Your task to perform on an android device: Search for alienware area 51 on walmart, select the first entry, and add it to the cart. Image 0: 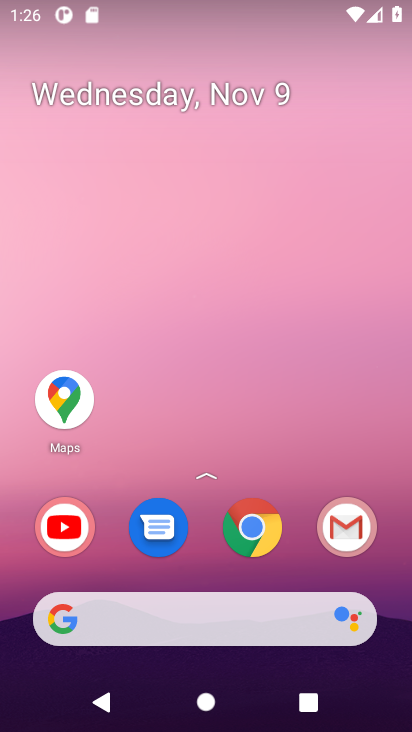
Step 0: click (254, 525)
Your task to perform on an android device: Search for alienware area 51 on walmart, select the first entry, and add it to the cart. Image 1: 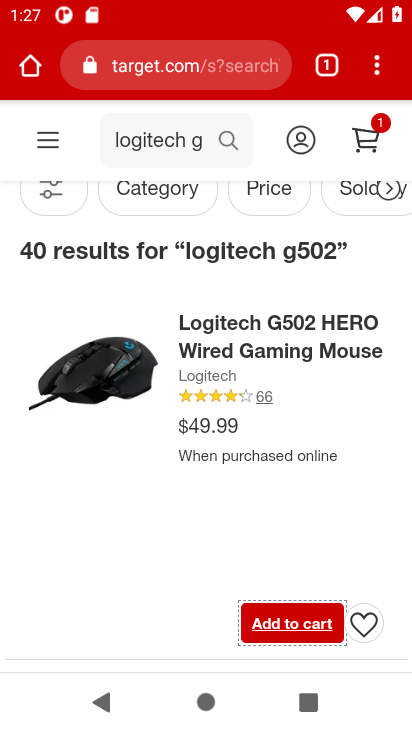
Step 1: click (252, 68)
Your task to perform on an android device: Search for alienware area 51 on walmart, select the first entry, and add it to the cart. Image 2: 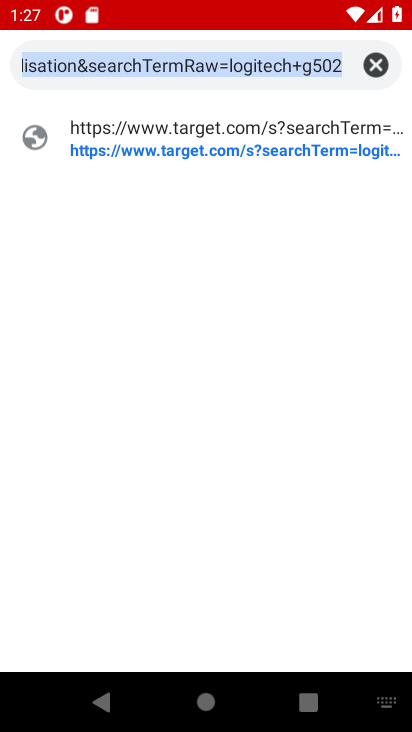
Step 2: click (380, 73)
Your task to perform on an android device: Search for alienware area 51 on walmart, select the first entry, and add it to the cart. Image 3: 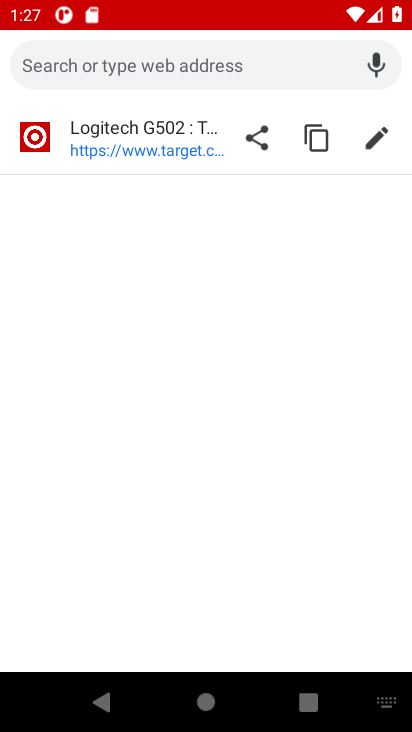
Step 3: type "walmart"
Your task to perform on an android device: Search for alienware area 51 on walmart, select the first entry, and add it to the cart. Image 4: 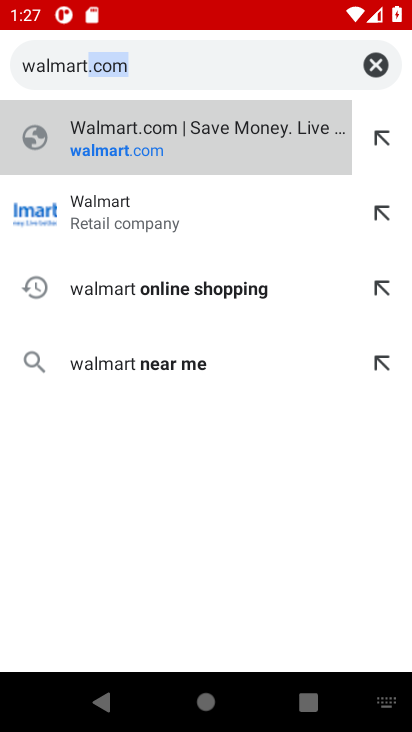
Step 4: click (138, 213)
Your task to perform on an android device: Search for alienware area 51 on walmart, select the first entry, and add it to the cart. Image 5: 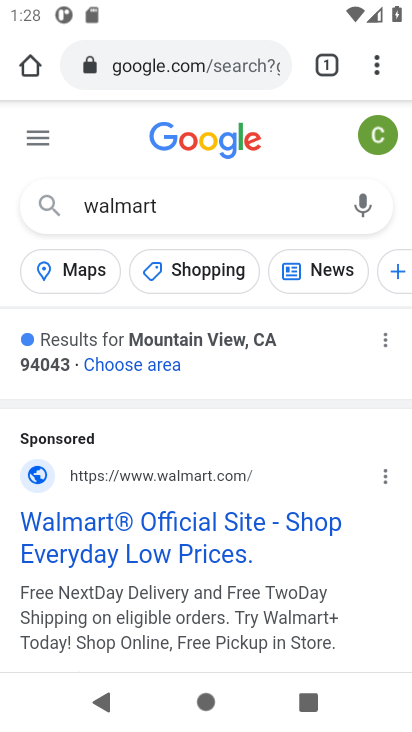
Step 5: drag from (257, 567) to (284, 323)
Your task to perform on an android device: Search for alienware area 51 on walmart, select the first entry, and add it to the cart. Image 6: 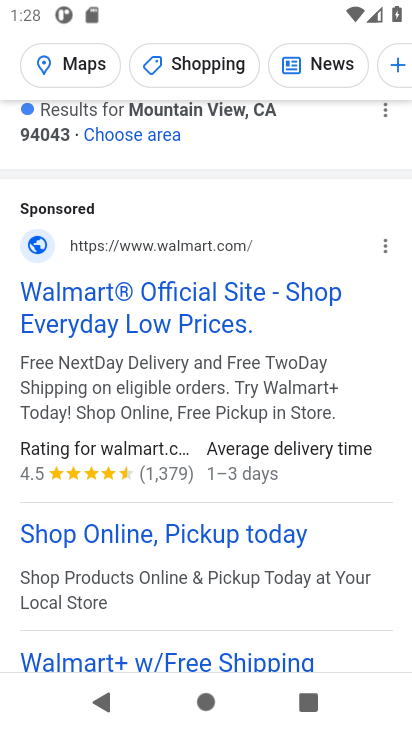
Step 6: drag from (228, 620) to (263, 339)
Your task to perform on an android device: Search for alienware area 51 on walmart, select the first entry, and add it to the cart. Image 7: 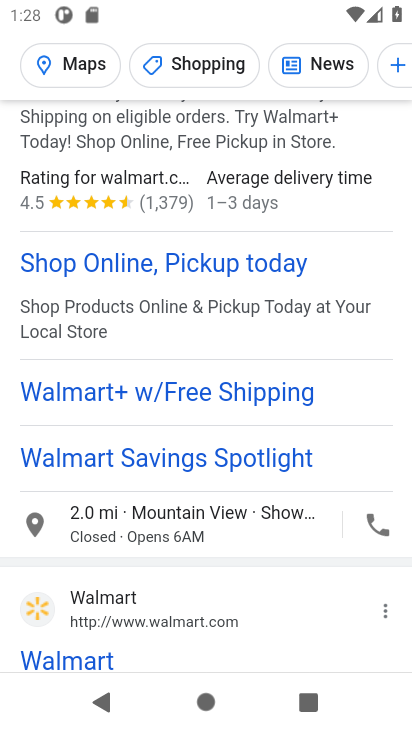
Step 7: click (132, 628)
Your task to perform on an android device: Search for alienware area 51 on walmart, select the first entry, and add it to the cart. Image 8: 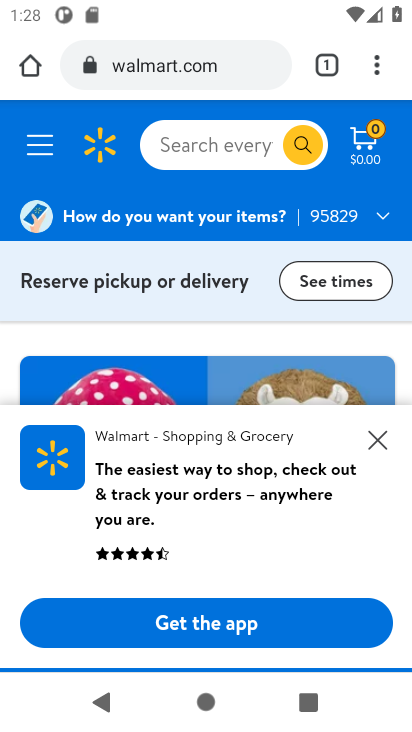
Step 8: click (240, 156)
Your task to perform on an android device: Search for alienware area 51 on walmart, select the first entry, and add it to the cart. Image 9: 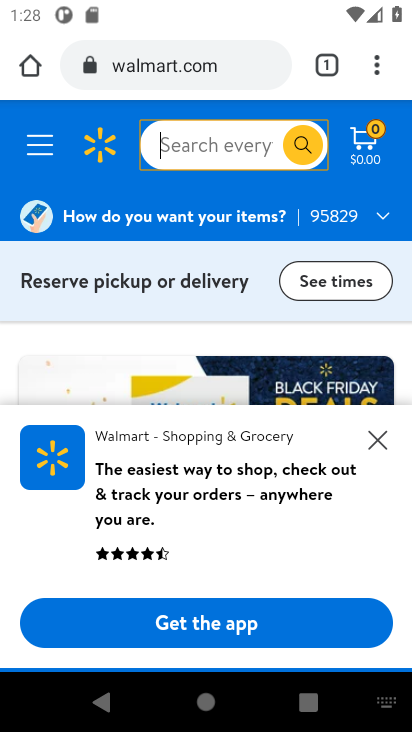
Step 9: type "alienware area 51"
Your task to perform on an android device: Search for alienware area 51 on walmart, select the first entry, and add it to the cart. Image 10: 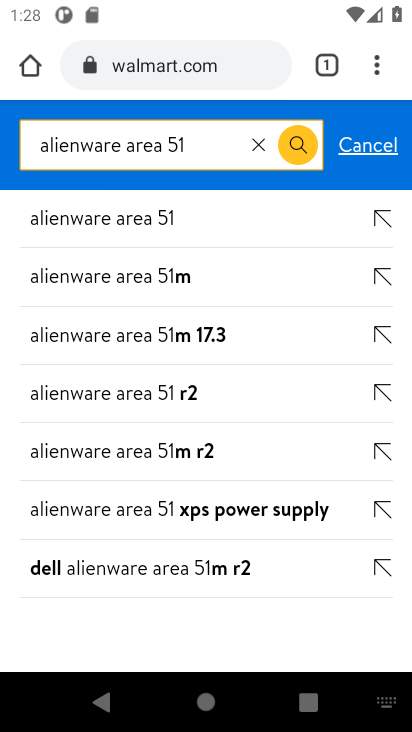
Step 10: click (75, 221)
Your task to perform on an android device: Search for alienware area 51 on walmart, select the first entry, and add it to the cart. Image 11: 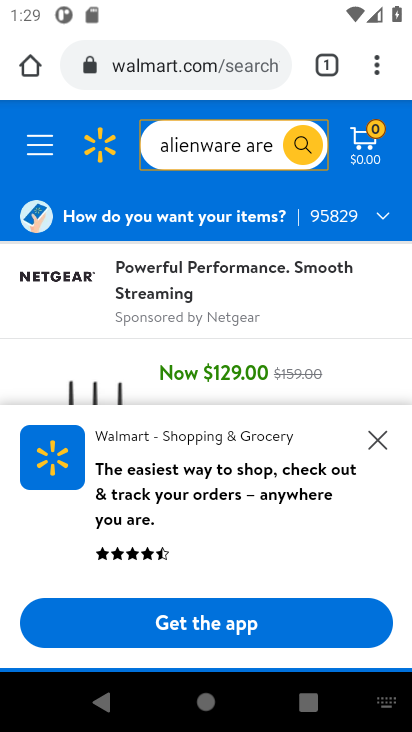
Step 11: click (373, 442)
Your task to perform on an android device: Search for alienware area 51 on walmart, select the first entry, and add it to the cart. Image 12: 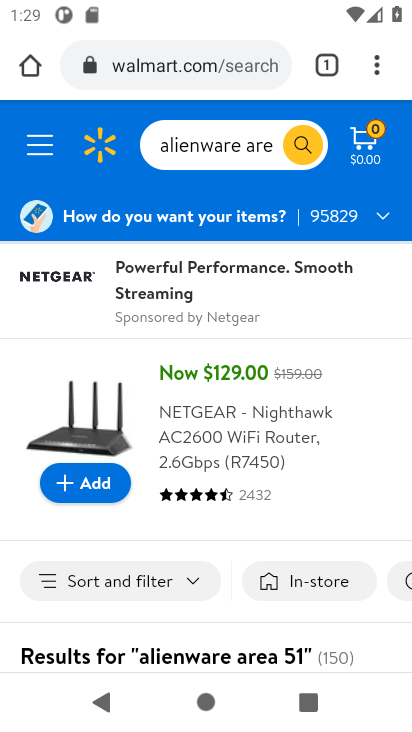
Step 12: drag from (238, 547) to (301, 274)
Your task to perform on an android device: Search for alienware area 51 on walmart, select the first entry, and add it to the cart. Image 13: 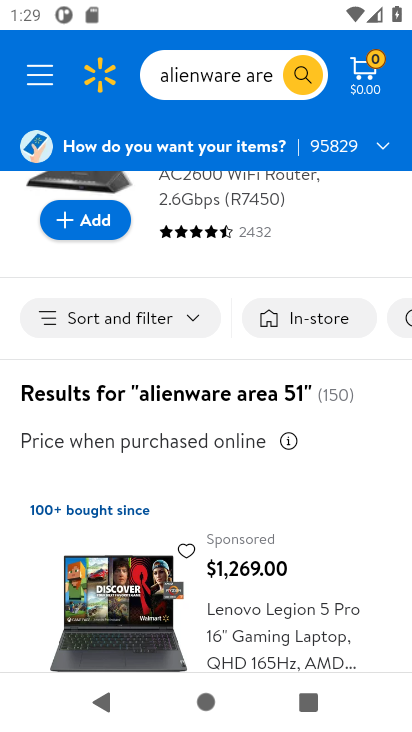
Step 13: drag from (274, 594) to (312, 289)
Your task to perform on an android device: Search for alienware area 51 on walmart, select the first entry, and add it to the cart. Image 14: 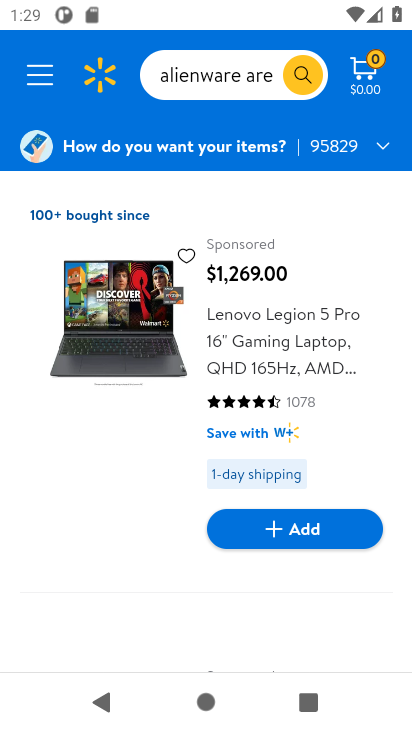
Step 14: drag from (232, 602) to (284, 255)
Your task to perform on an android device: Search for alienware area 51 on walmart, select the first entry, and add it to the cart. Image 15: 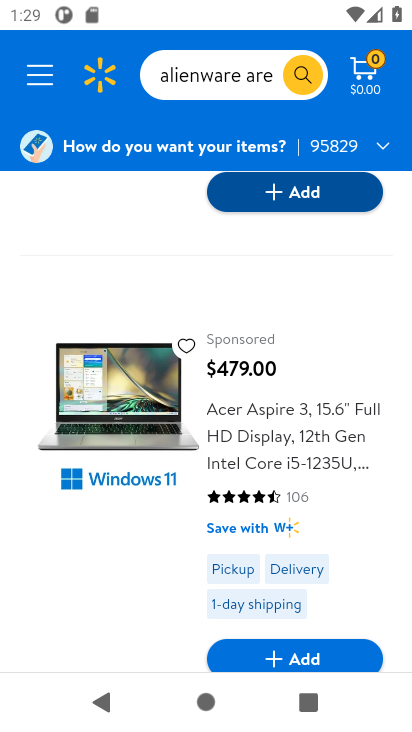
Step 15: drag from (287, 358) to (310, 231)
Your task to perform on an android device: Search for alienware area 51 on walmart, select the first entry, and add it to the cart. Image 16: 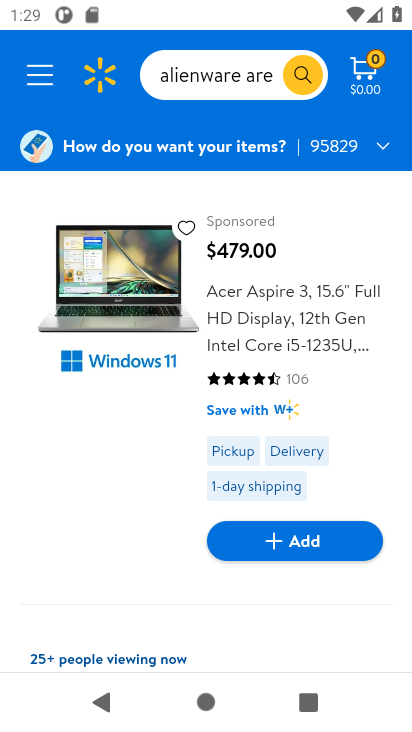
Step 16: drag from (209, 625) to (240, 323)
Your task to perform on an android device: Search for alienware area 51 on walmart, select the first entry, and add it to the cart. Image 17: 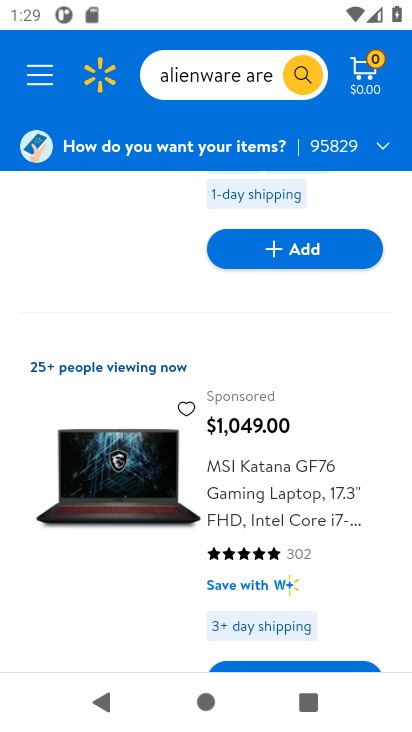
Step 17: drag from (241, 471) to (298, 248)
Your task to perform on an android device: Search for alienware area 51 on walmart, select the first entry, and add it to the cart. Image 18: 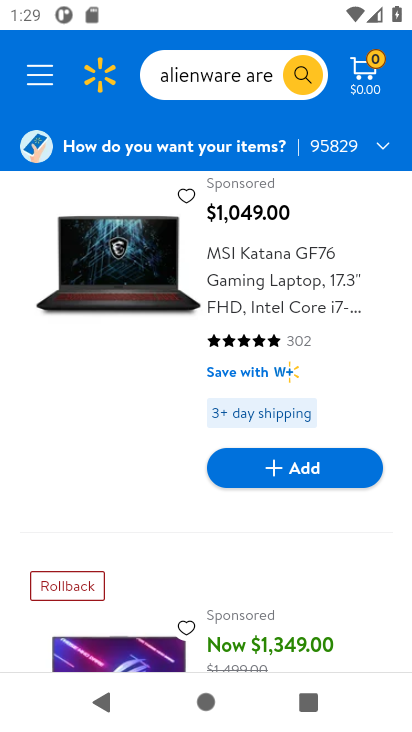
Step 18: drag from (272, 606) to (290, 348)
Your task to perform on an android device: Search for alienware area 51 on walmart, select the first entry, and add it to the cart. Image 19: 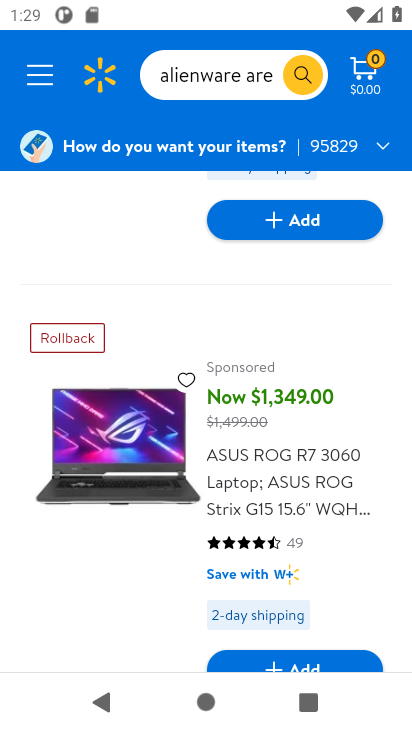
Step 19: drag from (312, 620) to (315, 361)
Your task to perform on an android device: Search for alienware area 51 on walmart, select the first entry, and add it to the cart. Image 20: 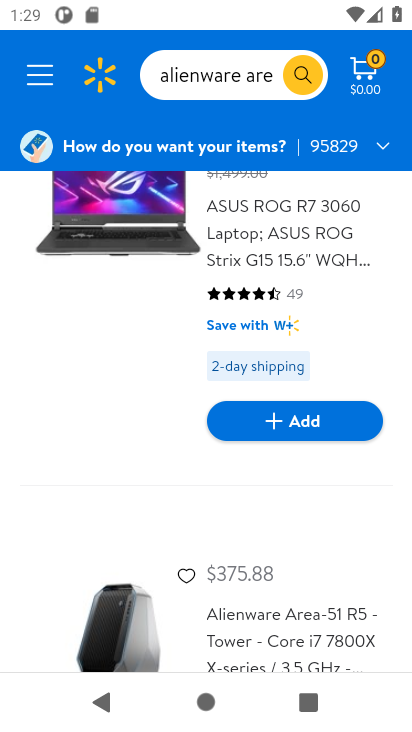
Step 20: drag from (271, 556) to (280, 349)
Your task to perform on an android device: Search for alienware area 51 on walmart, select the first entry, and add it to the cart. Image 21: 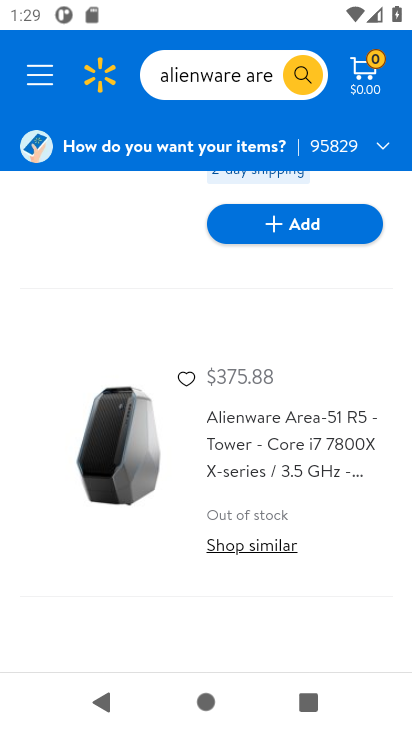
Step 21: drag from (234, 464) to (272, 238)
Your task to perform on an android device: Search for alienware area 51 on walmart, select the first entry, and add it to the cart. Image 22: 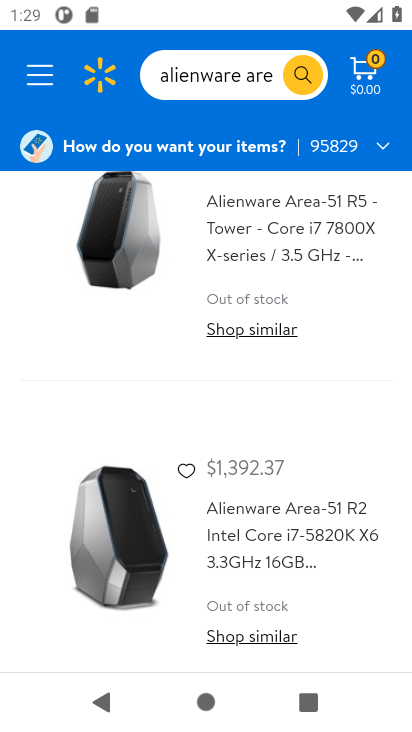
Step 22: drag from (256, 517) to (302, 300)
Your task to perform on an android device: Search for alienware area 51 on walmart, select the first entry, and add it to the cart. Image 23: 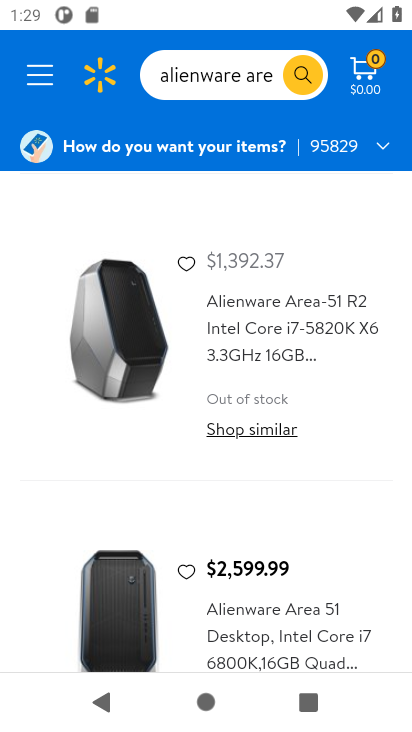
Step 23: drag from (266, 455) to (306, 340)
Your task to perform on an android device: Search for alienware area 51 on walmart, select the first entry, and add it to the cart. Image 24: 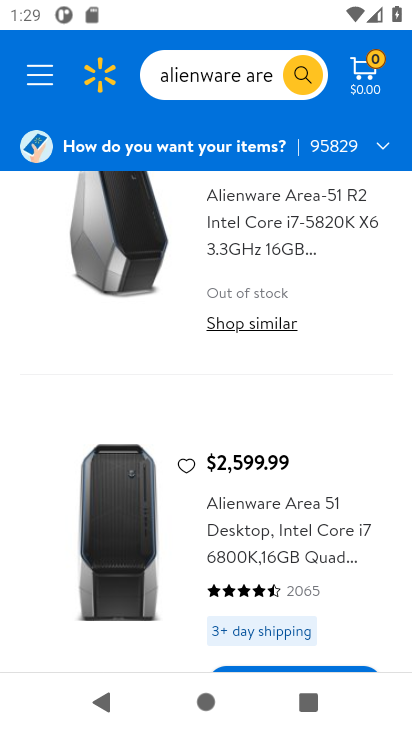
Step 24: click (285, 486)
Your task to perform on an android device: Search for alienware area 51 on walmart, select the first entry, and add it to the cart. Image 25: 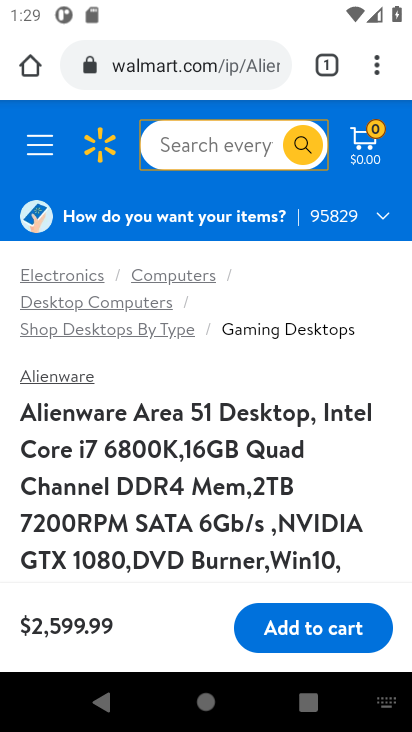
Step 25: click (325, 630)
Your task to perform on an android device: Search for alienware area 51 on walmart, select the first entry, and add it to the cart. Image 26: 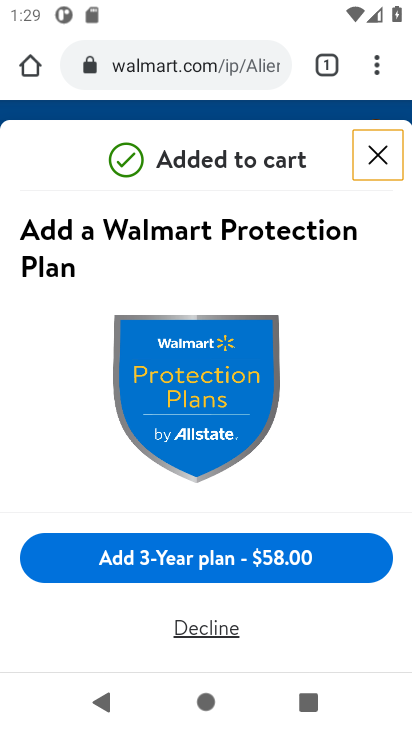
Step 26: task complete